Your task to perform on an android device: Add "logitech g933" to the cart on target Image 0: 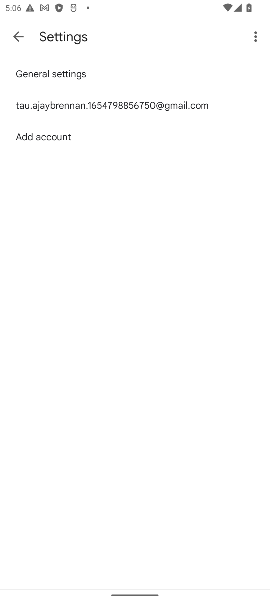
Step 0: press home button
Your task to perform on an android device: Add "logitech g933" to the cart on target Image 1: 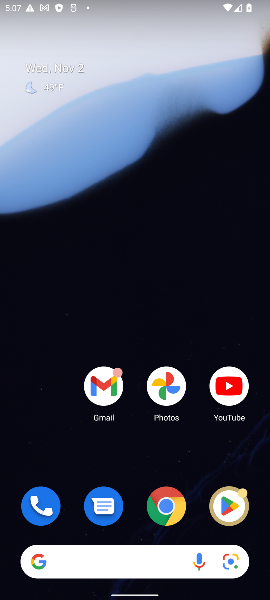
Step 1: click (166, 513)
Your task to perform on an android device: Add "logitech g933" to the cart on target Image 2: 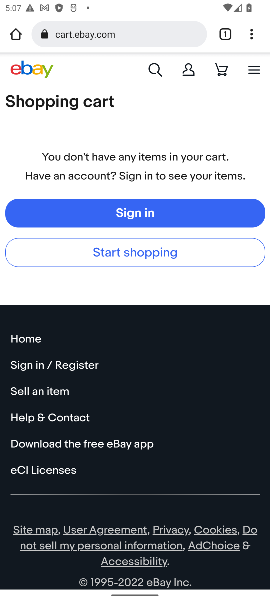
Step 2: click (124, 38)
Your task to perform on an android device: Add "logitech g933" to the cart on target Image 3: 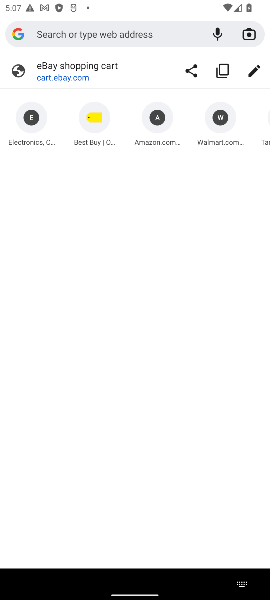
Step 3: type "target"
Your task to perform on an android device: Add "logitech g933" to the cart on target Image 4: 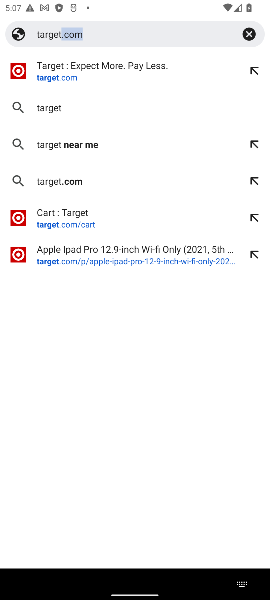
Step 4: press enter
Your task to perform on an android device: Add "logitech g933" to the cart on target Image 5: 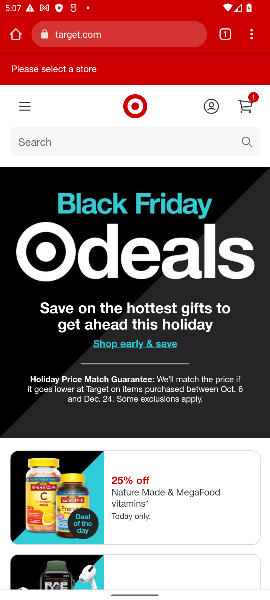
Step 5: click (81, 150)
Your task to perform on an android device: Add "logitech g933" to the cart on target Image 6: 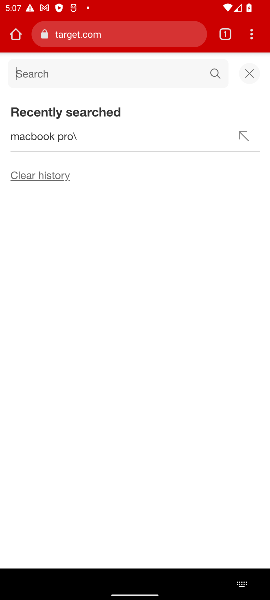
Step 6: type "logitech g23"
Your task to perform on an android device: Add "logitech g933" to the cart on target Image 7: 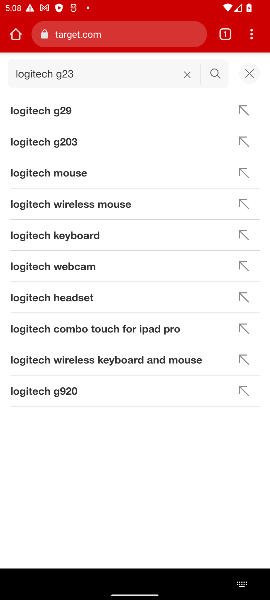
Step 7: press enter
Your task to perform on an android device: Add "logitech g933" to the cart on target Image 8: 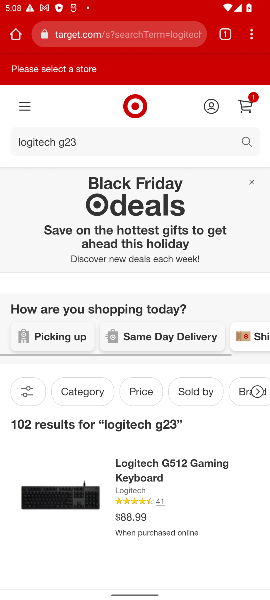
Step 8: click (69, 490)
Your task to perform on an android device: Add "logitech g933" to the cart on target Image 9: 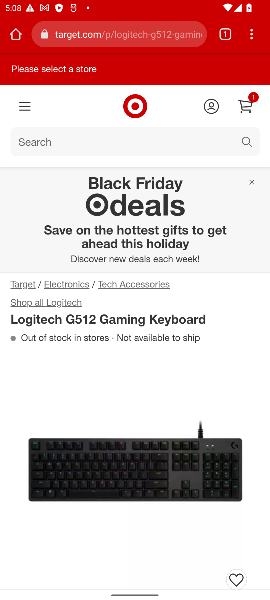
Step 9: task complete